Your task to perform on an android device: Turn off the flashlight Image 0: 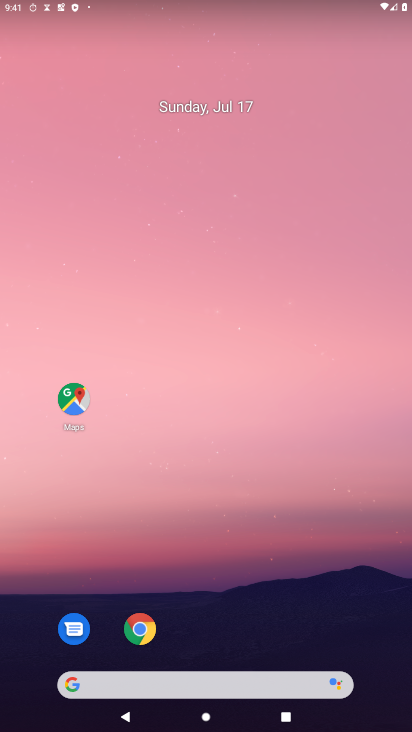
Step 0: drag from (242, 644) to (241, 88)
Your task to perform on an android device: Turn off the flashlight Image 1: 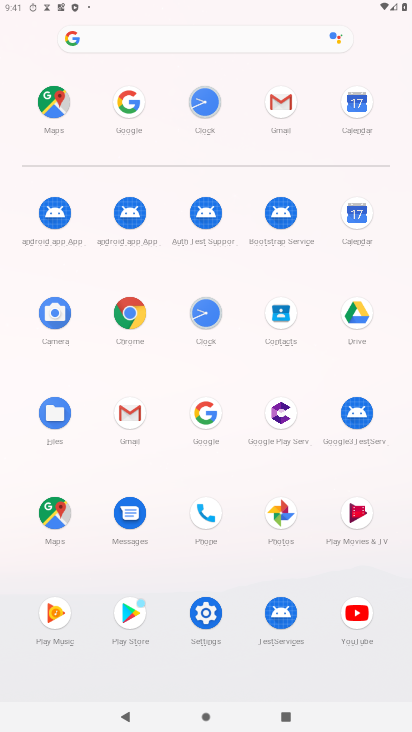
Step 1: click (204, 616)
Your task to perform on an android device: Turn off the flashlight Image 2: 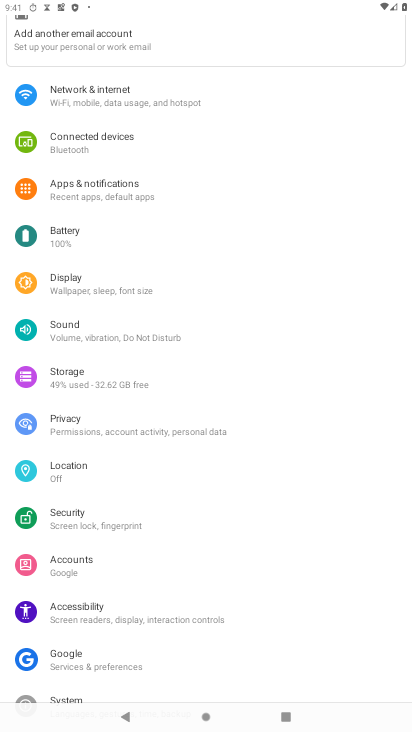
Step 2: task complete